Your task to perform on an android device: Open Yahoo.com Image 0: 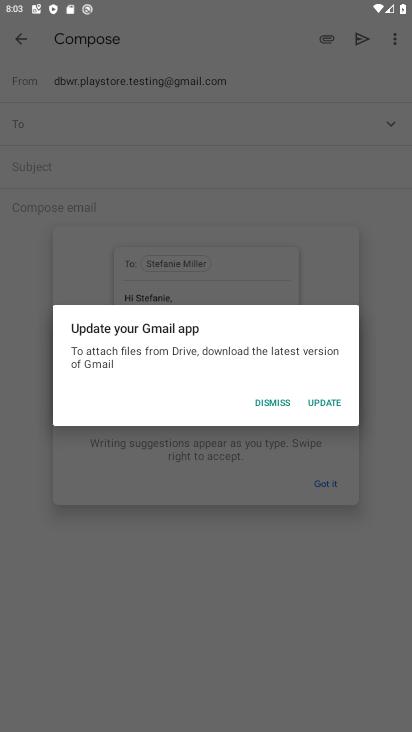
Step 0: press home button
Your task to perform on an android device: Open Yahoo.com Image 1: 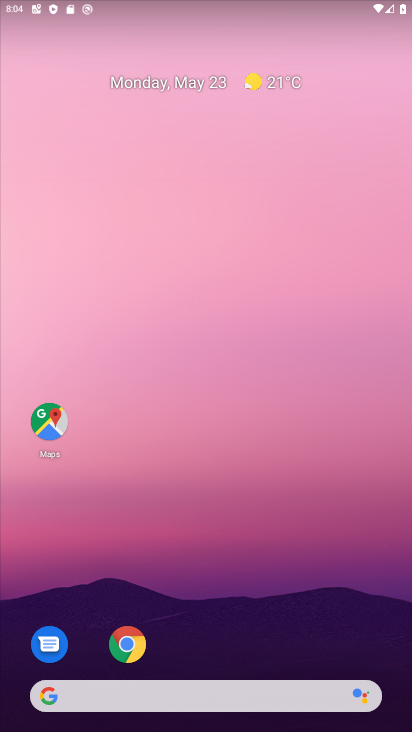
Step 1: click (204, 699)
Your task to perform on an android device: Open Yahoo.com Image 2: 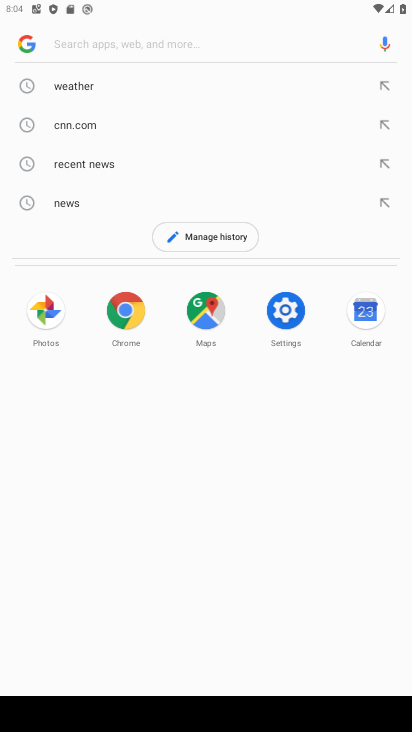
Step 2: type "yahoo.com"
Your task to perform on an android device: Open Yahoo.com Image 3: 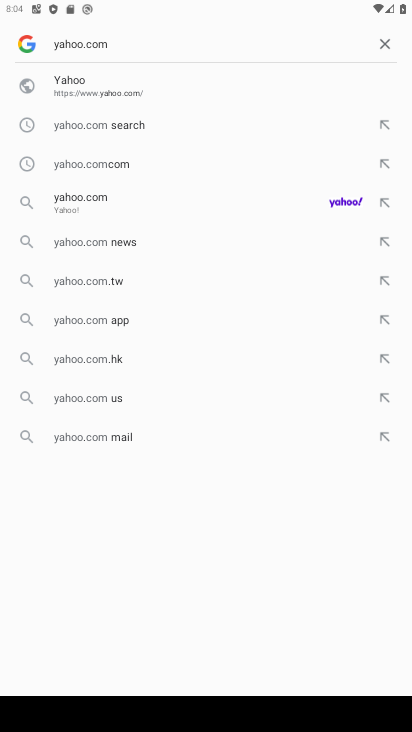
Step 3: click (144, 81)
Your task to perform on an android device: Open Yahoo.com Image 4: 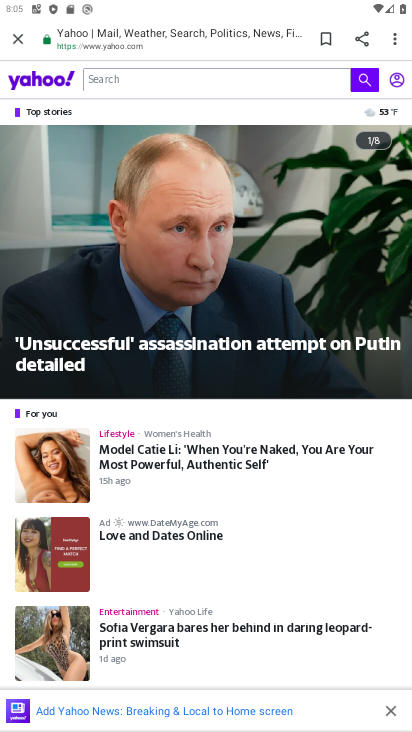
Step 4: task complete